Your task to perform on an android device: Find coffee shops on Maps Image 0: 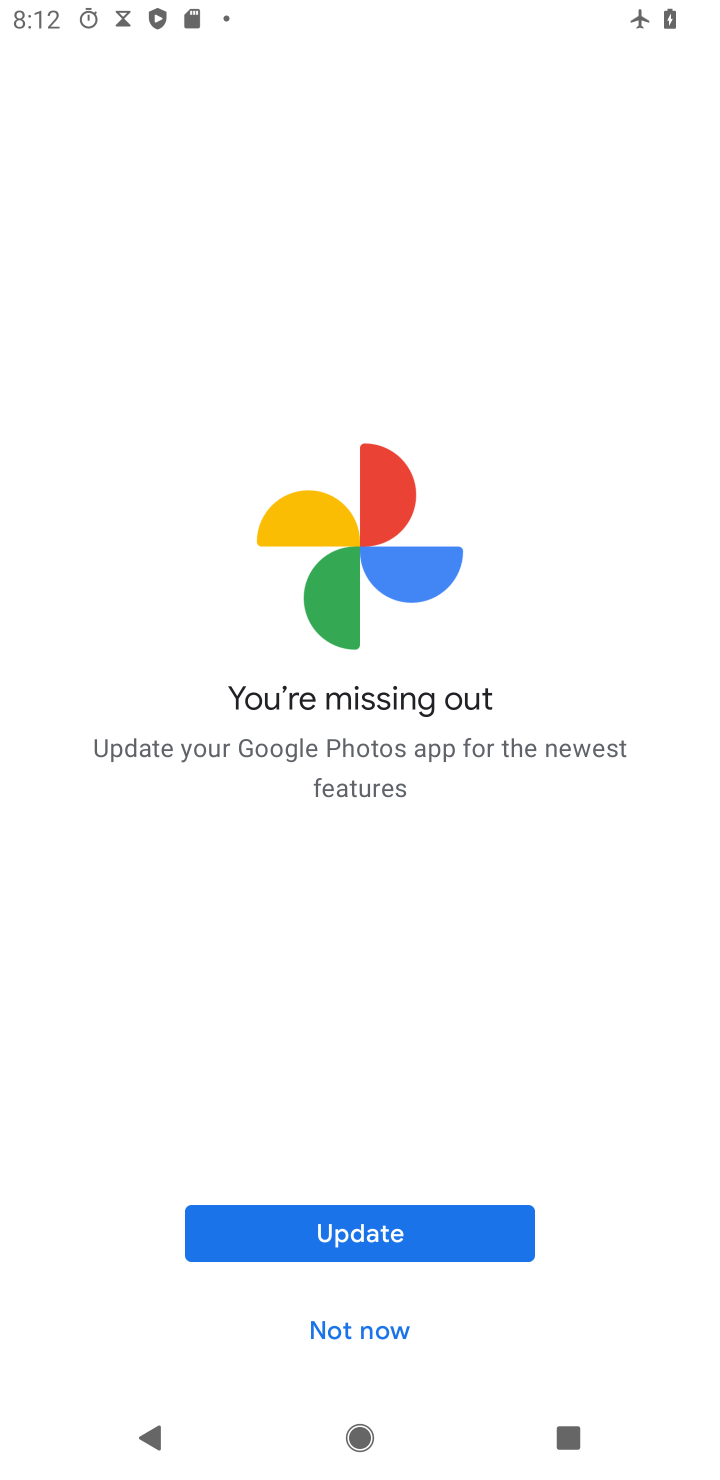
Step 0: press back button
Your task to perform on an android device: Find coffee shops on Maps Image 1: 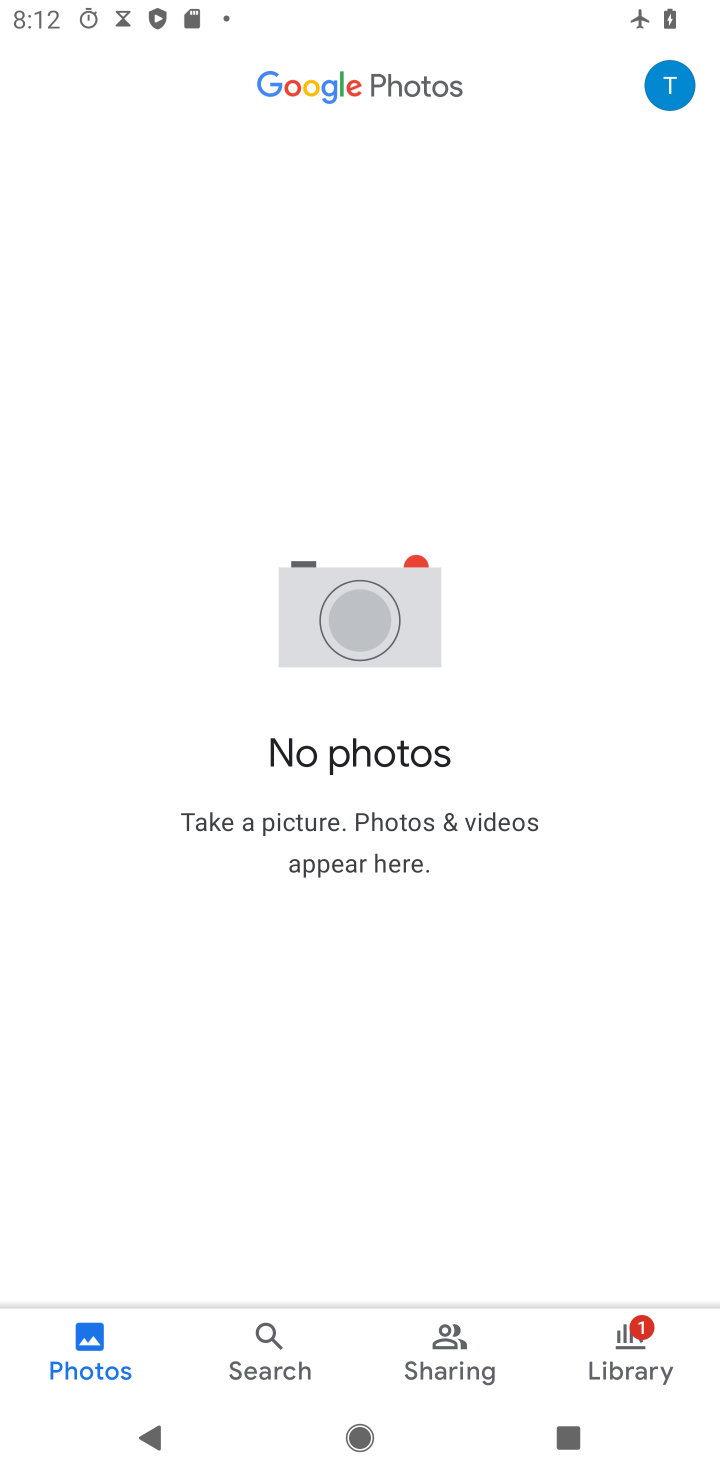
Step 1: press home button
Your task to perform on an android device: Find coffee shops on Maps Image 2: 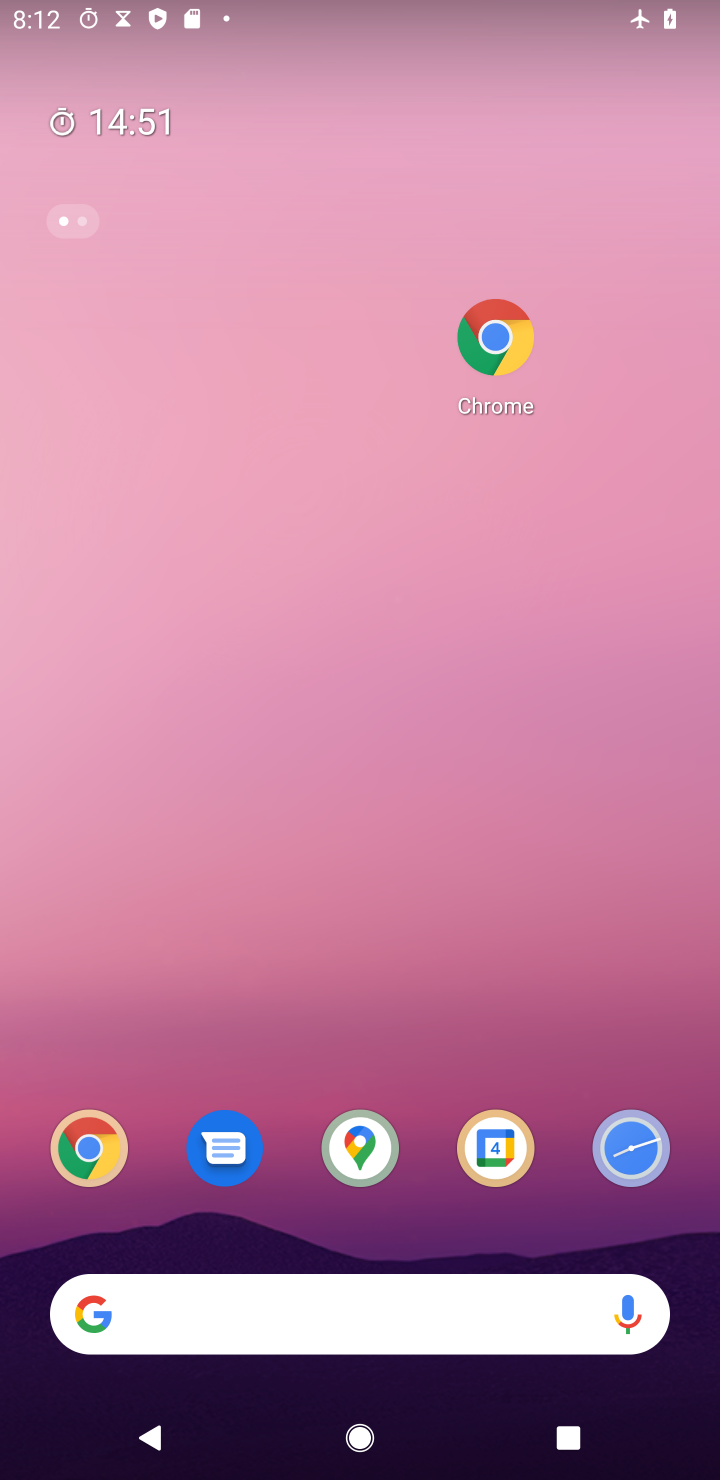
Step 2: click (374, 1161)
Your task to perform on an android device: Find coffee shops on Maps Image 3: 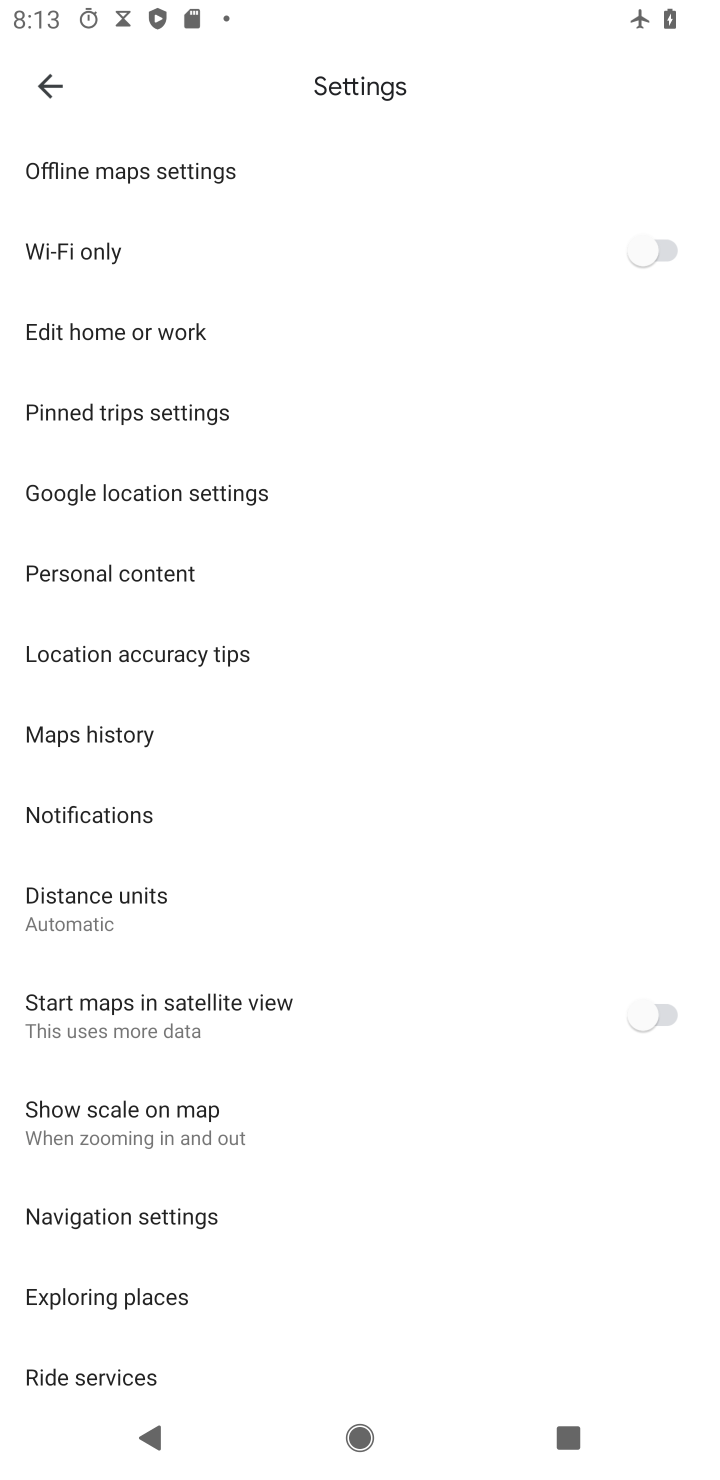
Step 3: click (51, 95)
Your task to perform on an android device: Find coffee shops on Maps Image 4: 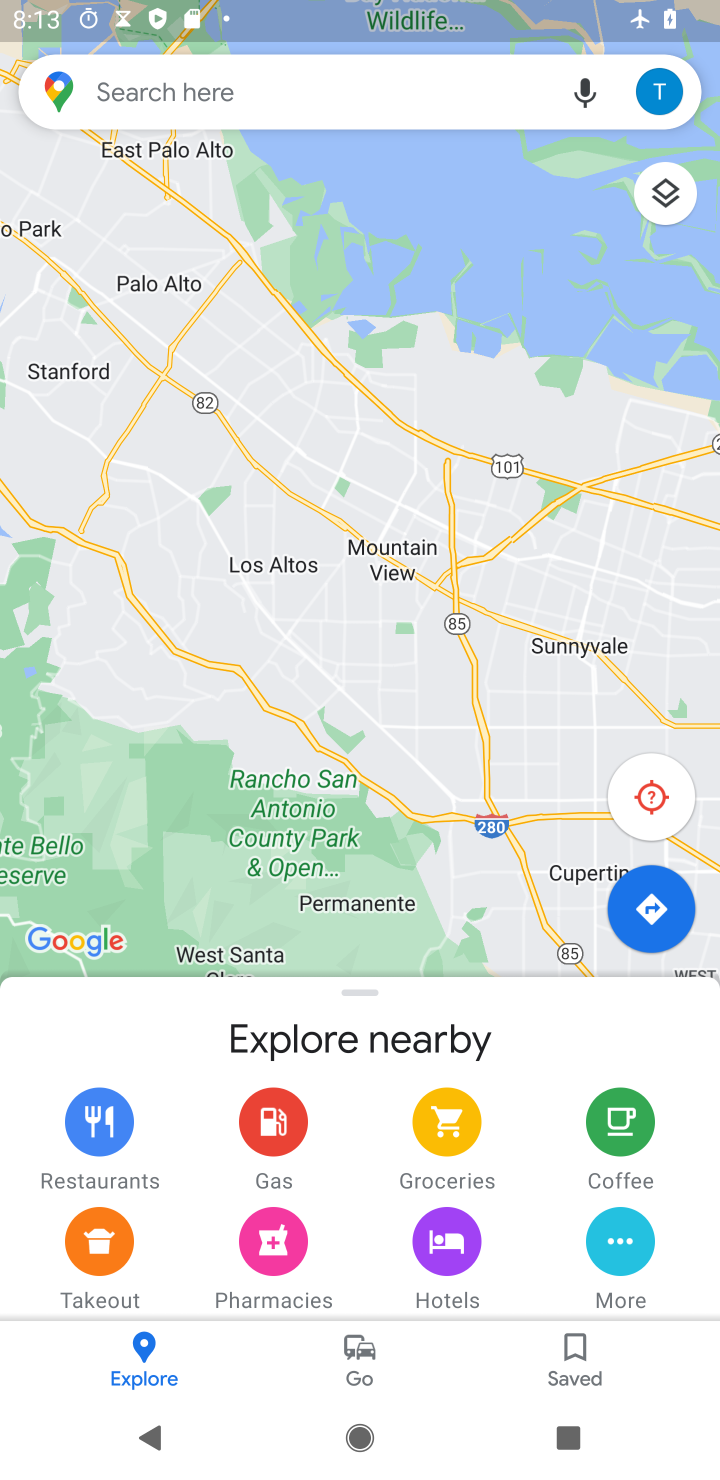
Step 4: click (313, 93)
Your task to perform on an android device: Find coffee shops on Maps Image 5: 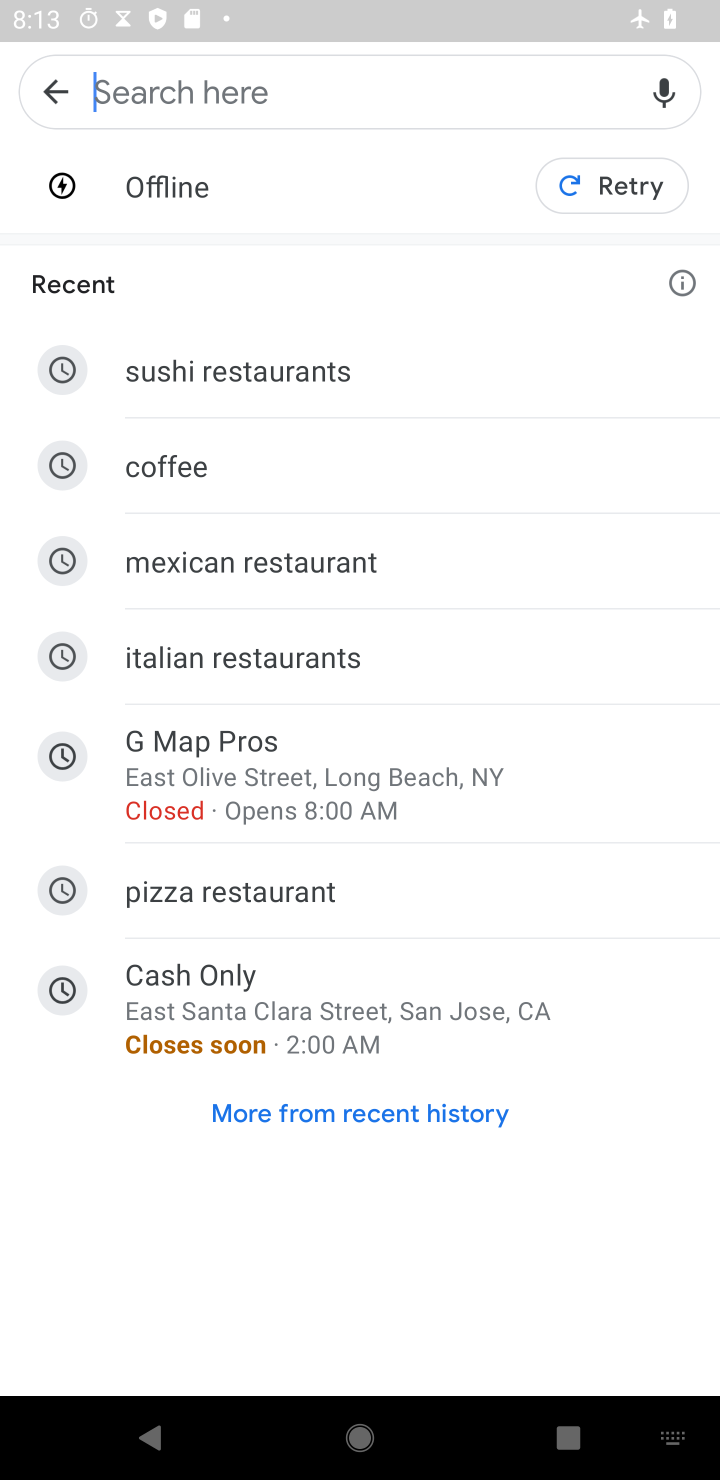
Step 5: click (294, 469)
Your task to perform on an android device: Find coffee shops on Maps Image 6: 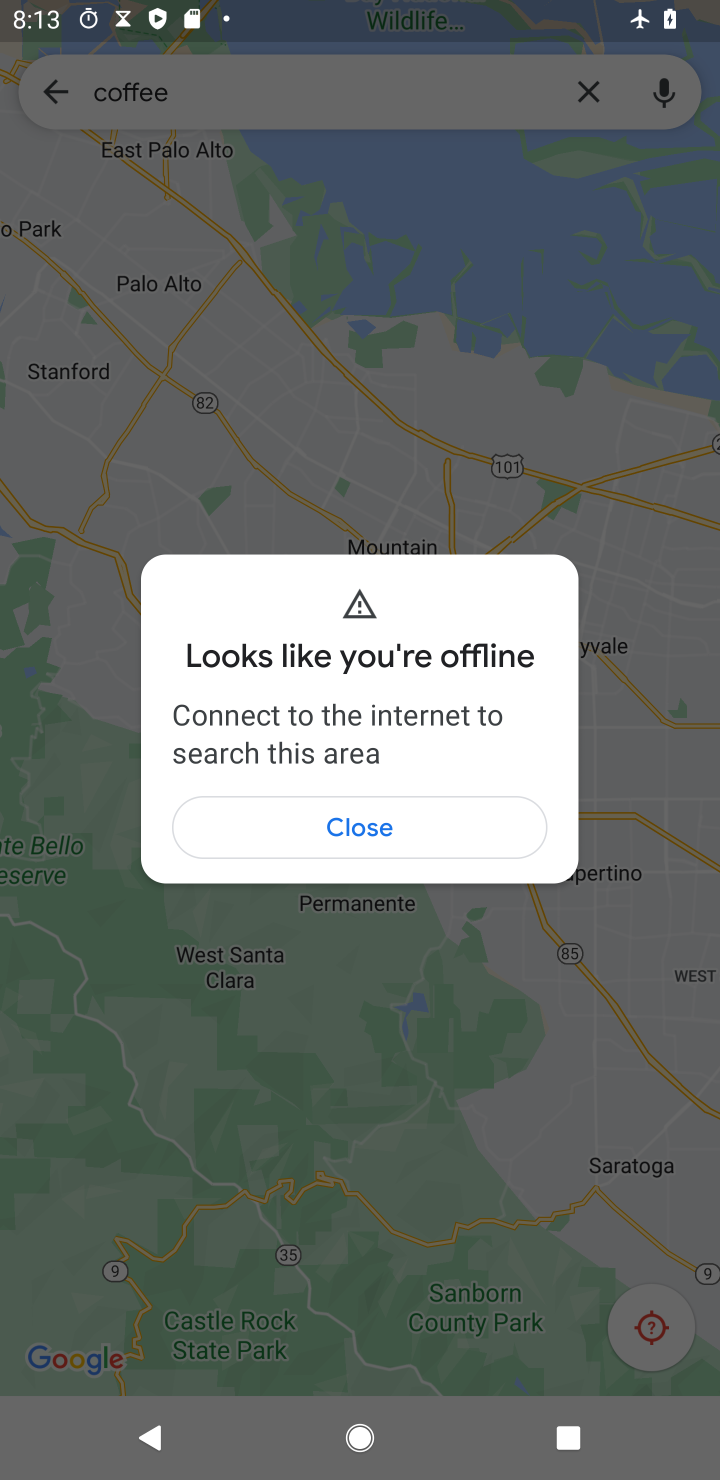
Step 6: click (461, 827)
Your task to perform on an android device: Find coffee shops on Maps Image 7: 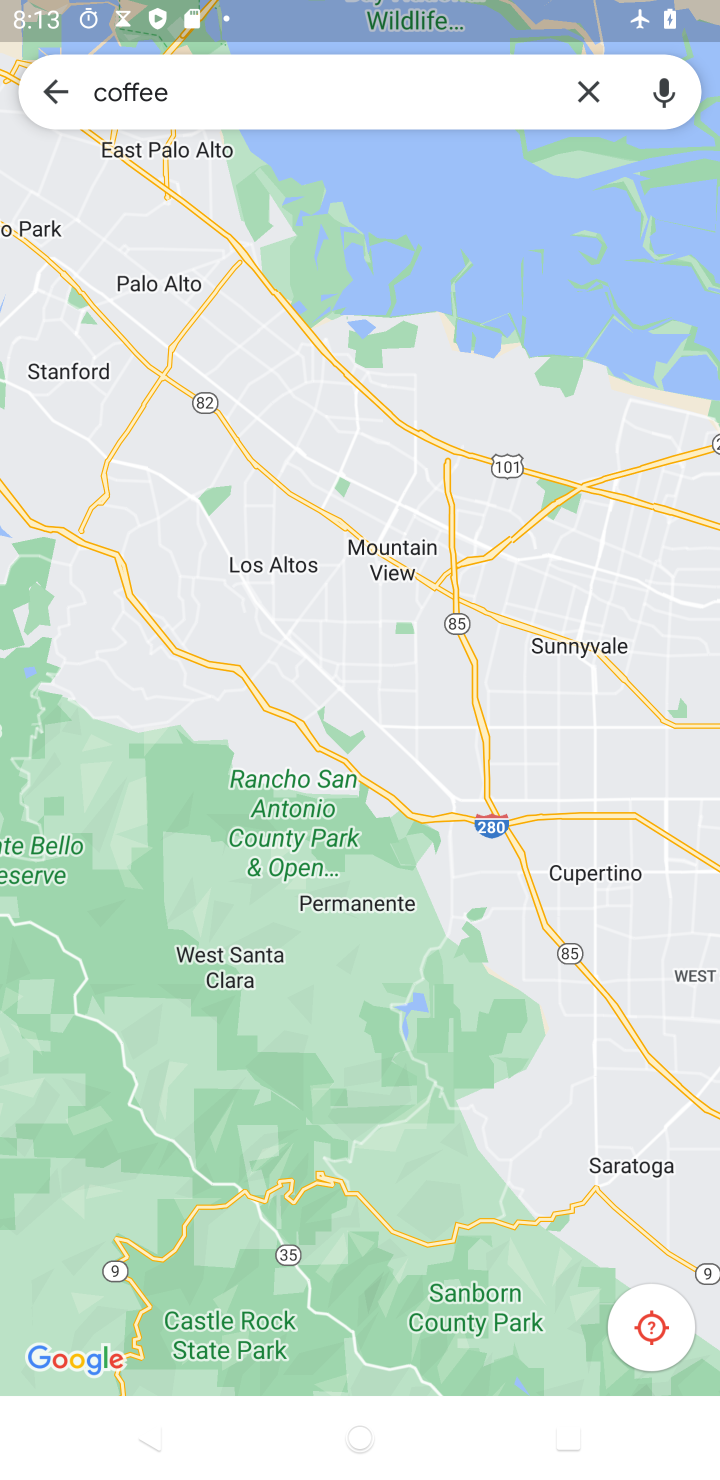
Step 7: task complete